Your task to perform on an android device: Open the web browser Image 0: 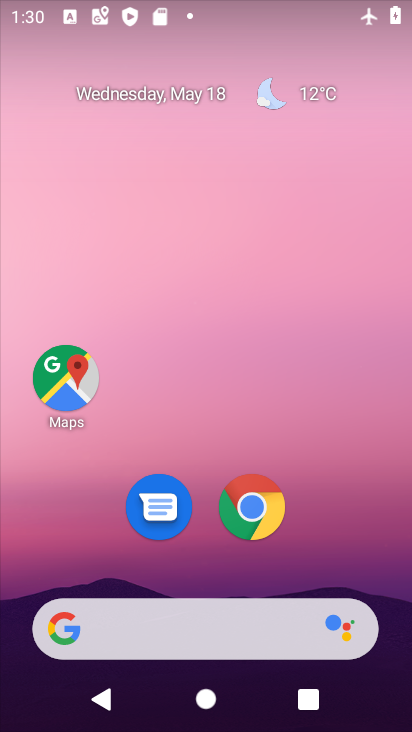
Step 0: click (260, 510)
Your task to perform on an android device: Open the web browser Image 1: 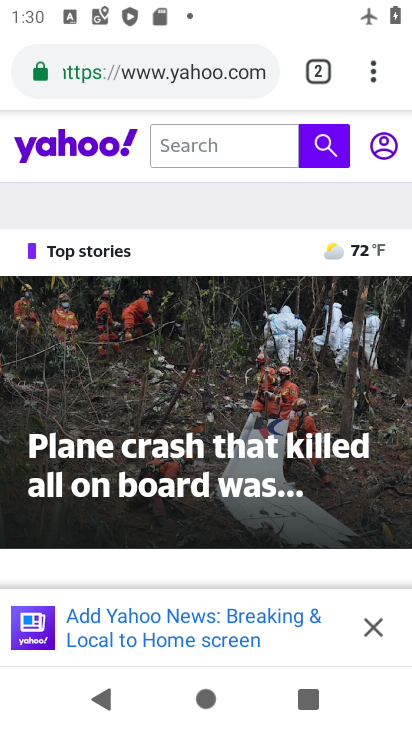
Step 1: task complete